Your task to perform on an android device: open a new tab in the chrome app Image 0: 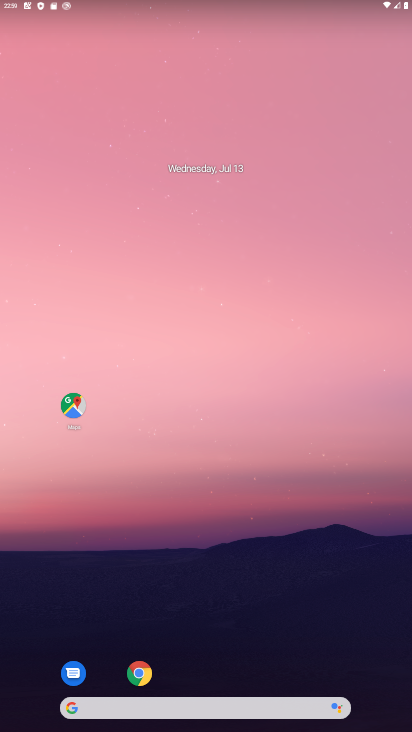
Step 0: click (148, 675)
Your task to perform on an android device: open a new tab in the chrome app Image 1: 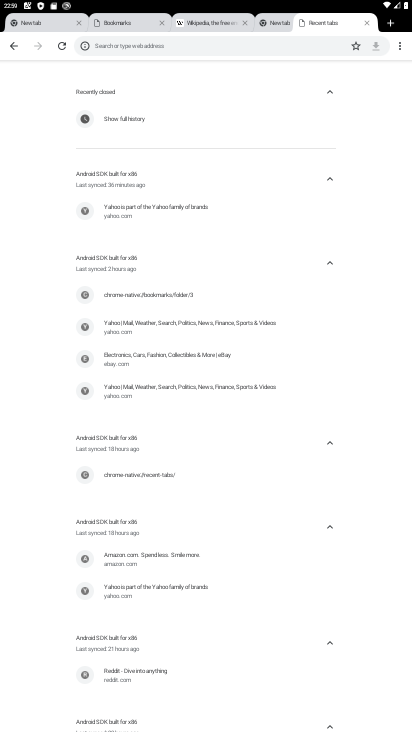
Step 1: click (388, 23)
Your task to perform on an android device: open a new tab in the chrome app Image 2: 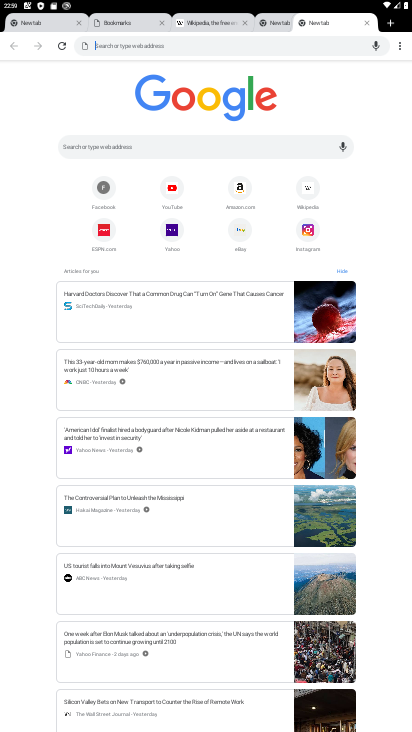
Step 2: task complete